Your task to perform on an android device: stop showing notifications on the lock screen Image 0: 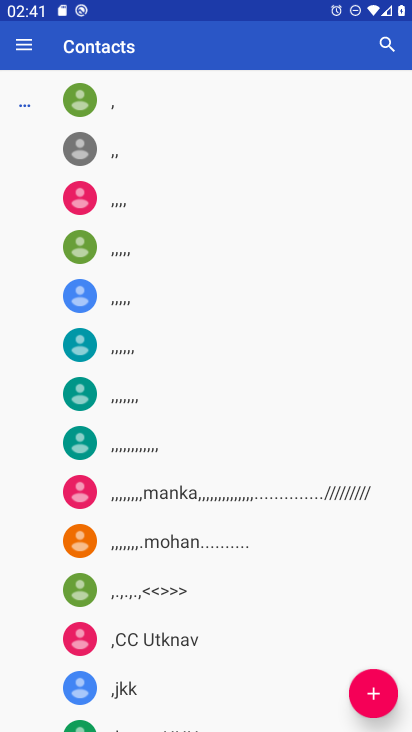
Step 0: press home button
Your task to perform on an android device: stop showing notifications on the lock screen Image 1: 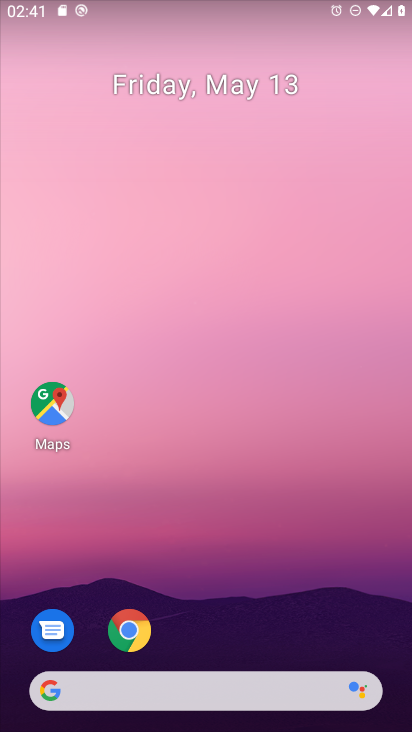
Step 1: drag from (194, 709) to (181, 325)
Your task to perform on an android device: stop showing notifications on the lock screen Image 2: 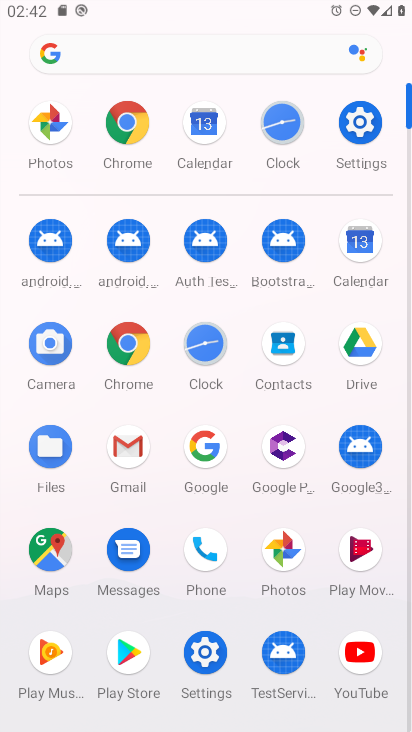
Step 2: click (185, 44)
Your task to perform on an android device: stop showing notifications on the lock screen Image 3: 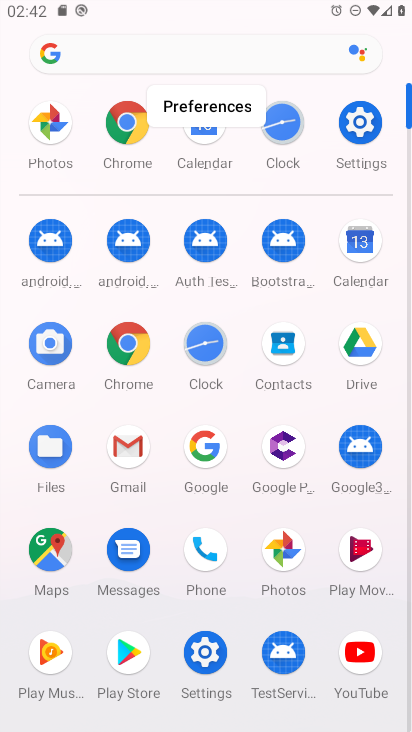
Step 3: click (361, 125)
Your task to perform on an android device: stop showing notifications on the lock screen Image 4: 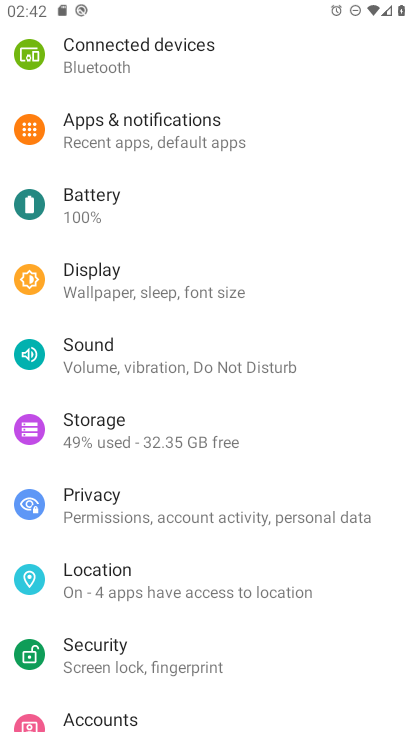
Step 4: drag from (180, 99) to (138, 328)
Your task to perform on an android device: stop showing notifications on the lock screen Image 5: 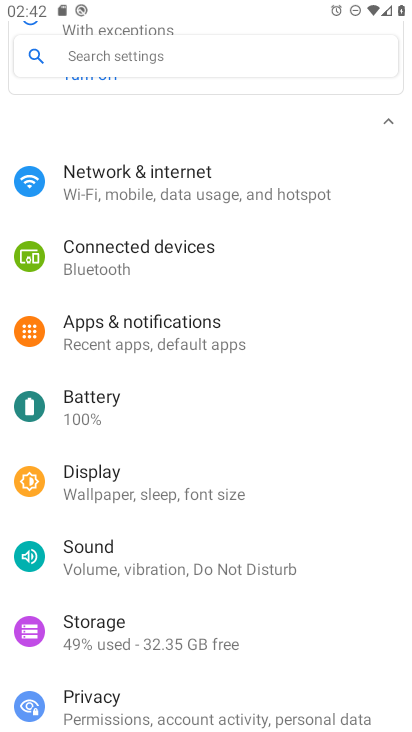
Step 5: click (178, 53)
Your task to perform on an android device: stop showing notifications on the lock screen Image 6: 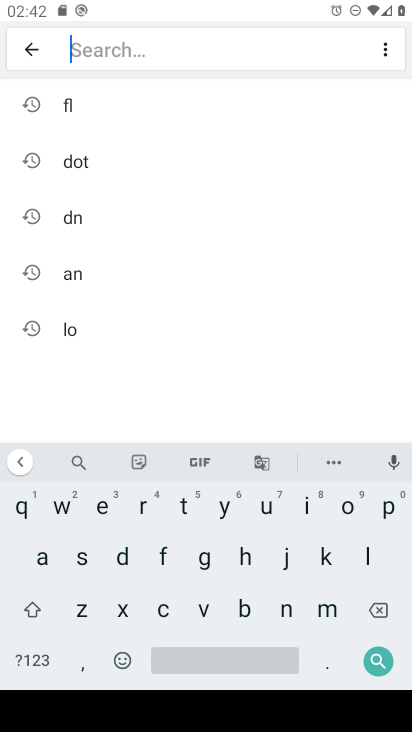
Step 6: click (288, 611)
Your task to perform on an android device: stop showing notifications on the lock screen Image 7: 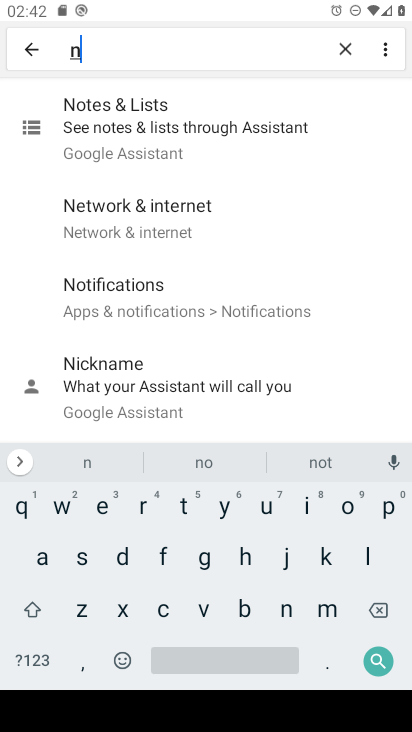
Step 7: click (348, 507)
Your task to perform on an android device: stop showing notifications on the lock screen Image 8: 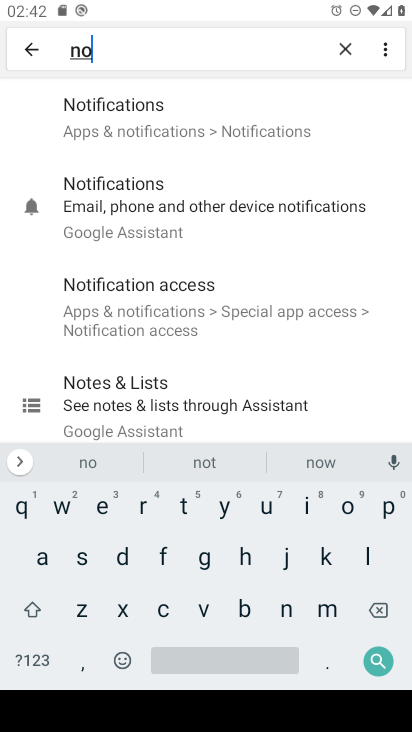
Step 8: click (196, 133)
Your task to perform on an android device: stop showing notifications on the lock screen Image 9: 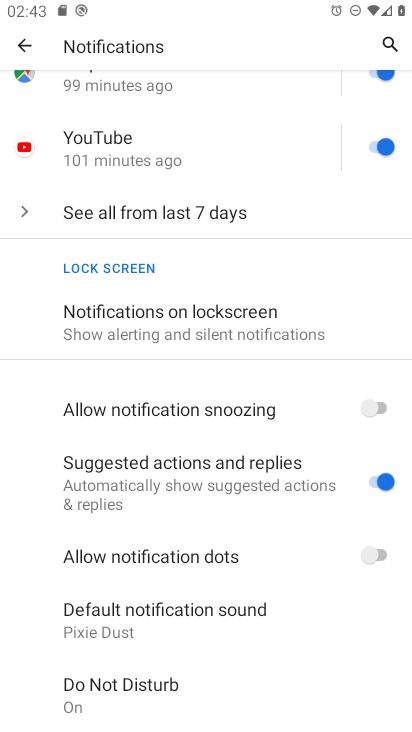
Step 9: click (140, 327)
Your task to perform on an android device: stop showing notifications on the lock screen Image 10: 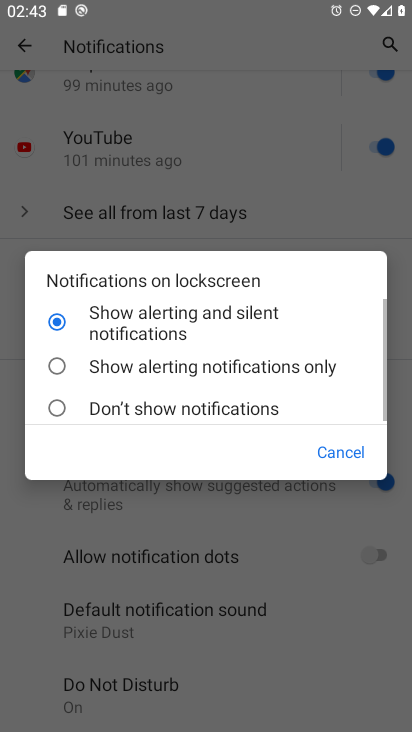
Step 10: click (142, 414)
Your task to perform on an android device: stop showing notifications on the lock screen Image 11: 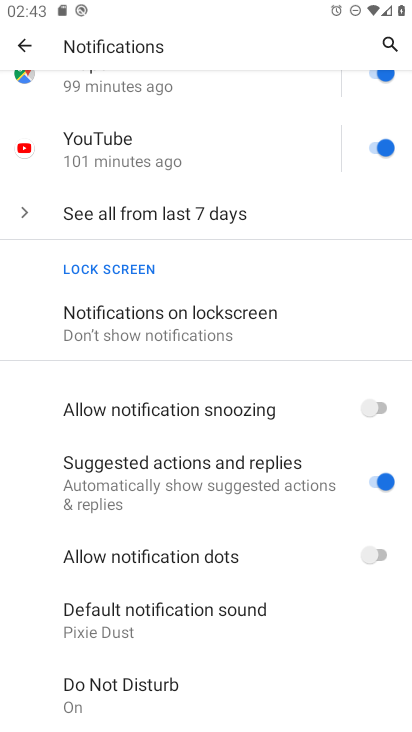
Step 11: task complete